Your task to perform on an android device: Open privacy settings Image 0: 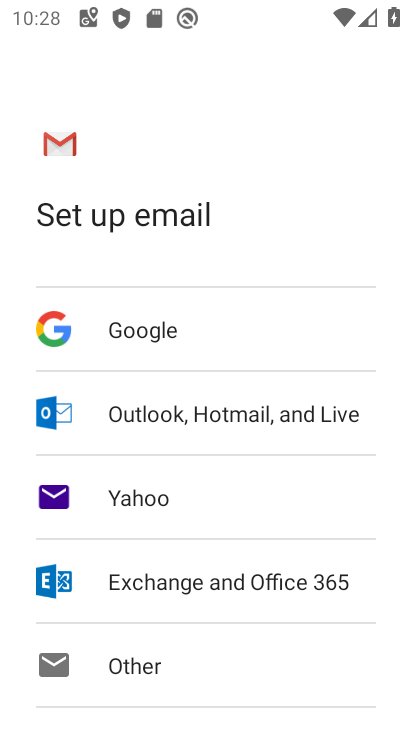
Step 0: press home button
Your task to perform on an android device: Open privacy settings Image 1: 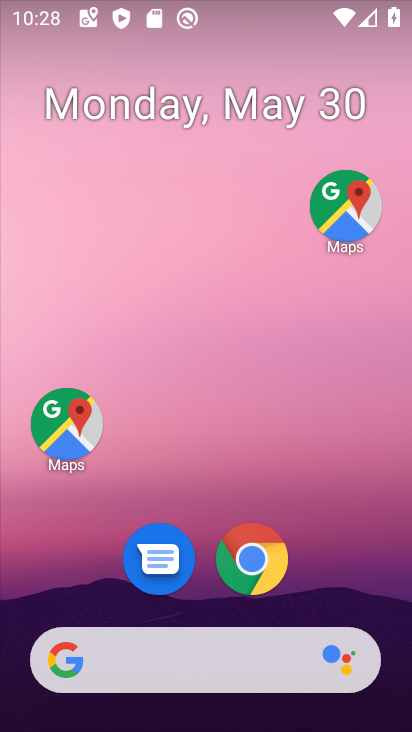
Step 1: drag from (314, 571) to (308, 62)
Your task to perform on an android device: Open privacy settings Image 2: 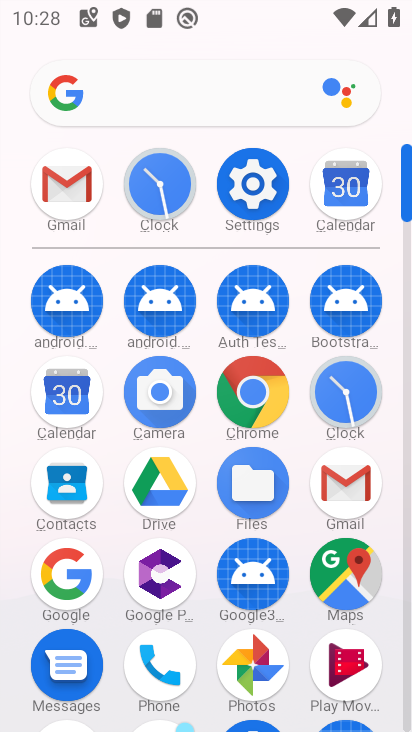
Step 2: click (249, 171)
Your task to perform on an android device: Open privacy settings Image 3: 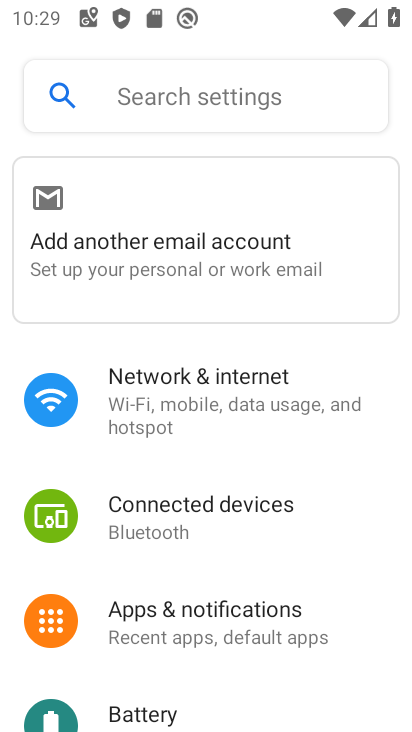
Step 3: drag from (263, 569) to (349, 52)
Your task to perform on an android device: Open privacy settings Image 4: 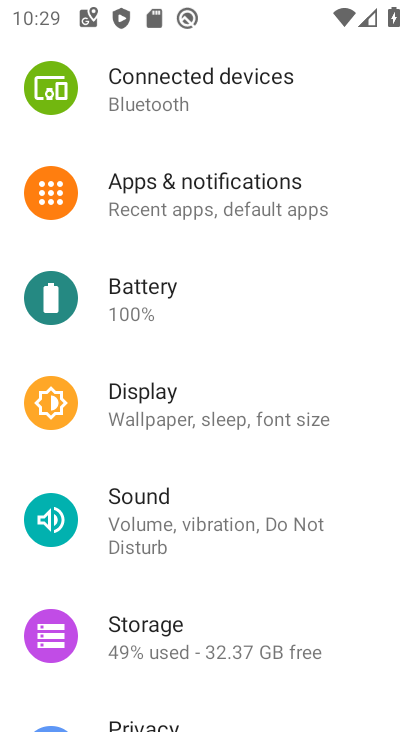
Step 4: drag from (192, 532) to (269, 138)
Your task to perform on an android device: Open privacy settings Image 5: 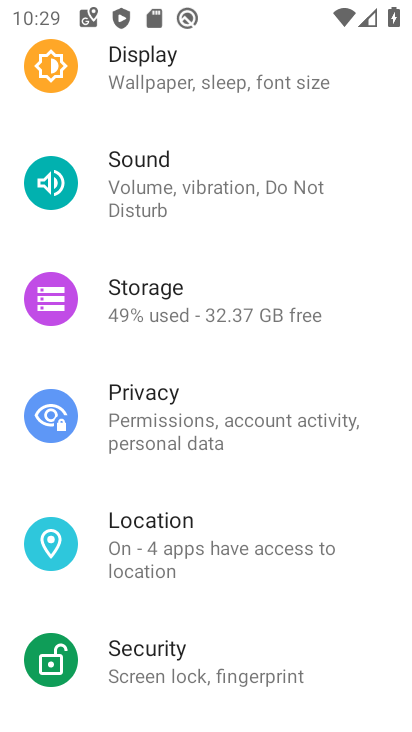
Step 5: click (165, 439)
Your task to perform on an android device: Open privacy settings Image 6: 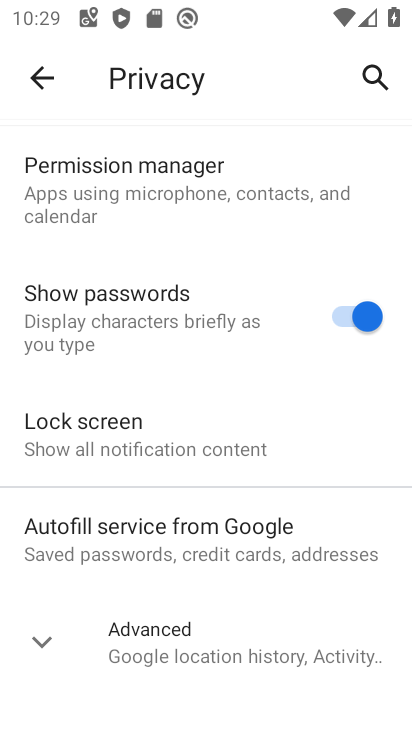
Step 6: task complete